Your task to perform on an android device: open a bookmark in the chrome app Image 0: 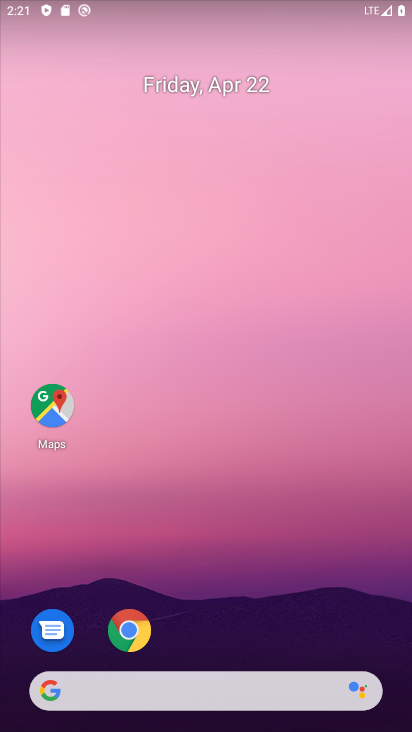
Step 0: drag from (370, 615) to (354, 221)
Your task to perform on an android device: open a bookmark in the chrome app Image 1: 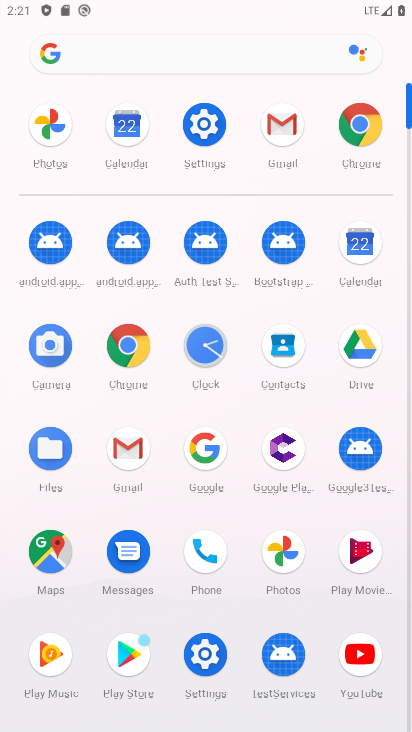
Step 1: click (111, 341)
Your task to perform on an android device: open a bookmark in the chrome app Image 2: 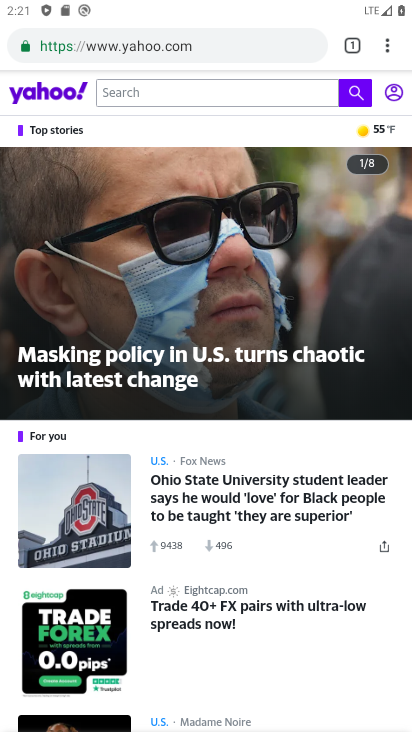
Step 2: task complete